Your task to perform on an android device: open app "eBay: The shopping marketplace" Image 0: 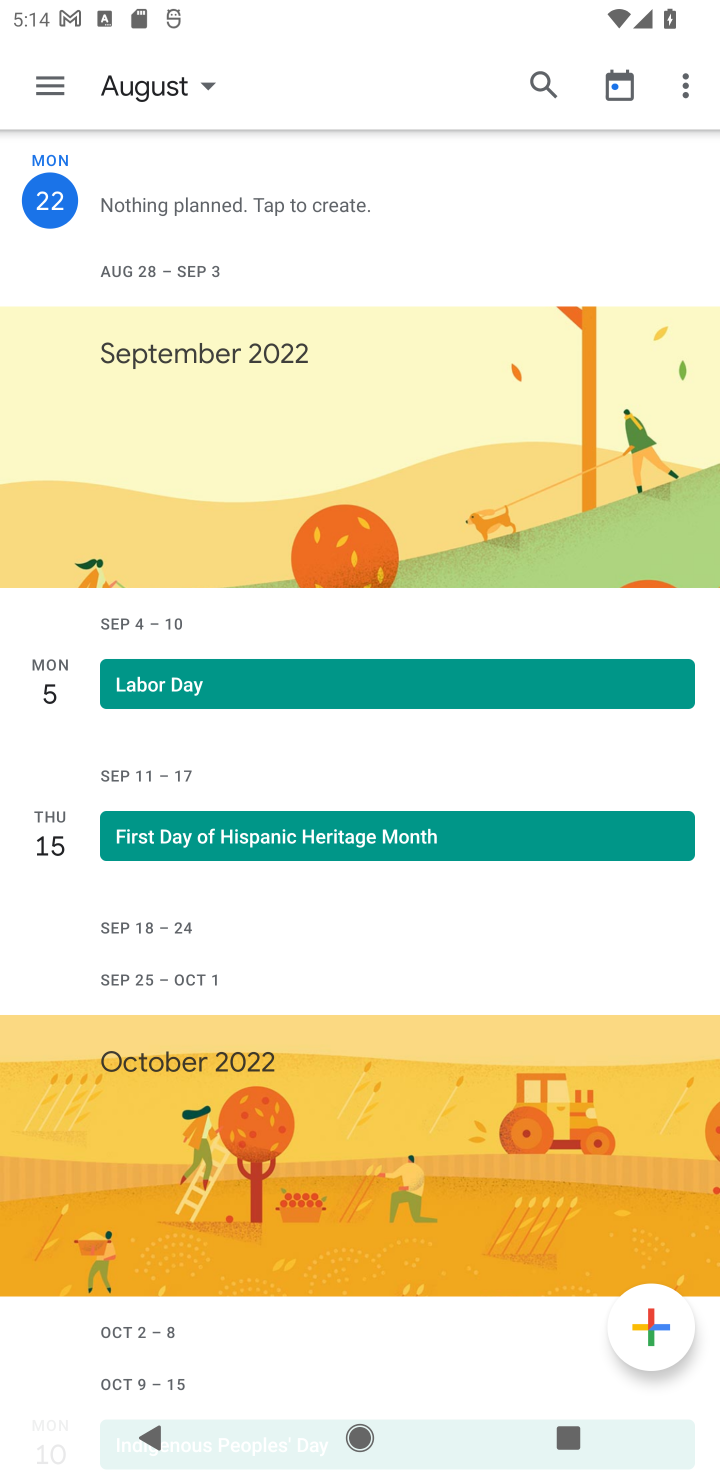
Step 0: press home button
Your task to perform on an android device: open app "eBay: The shopping marketplace" Image 1: 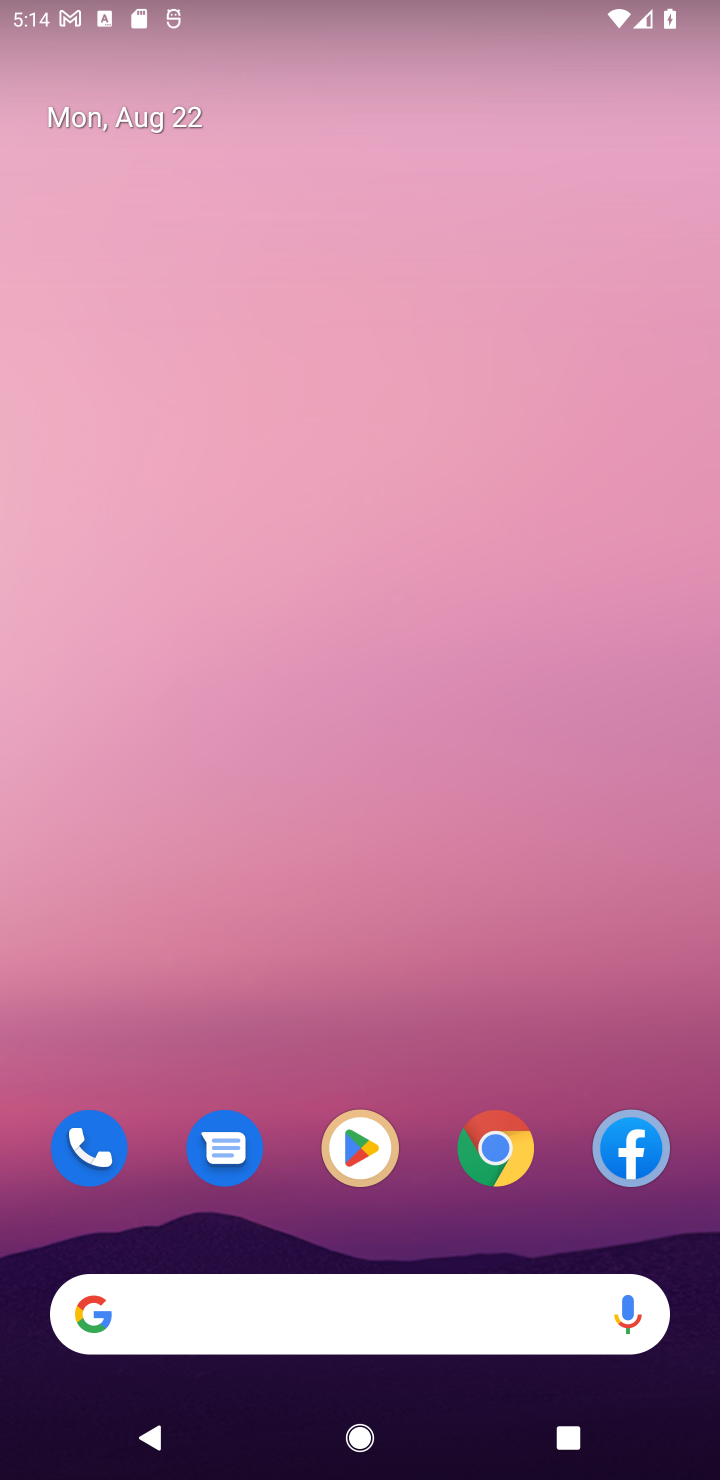
Step 1: click (359, 1155)
Your task to perform on an android device: open app "eBay: The shopping marketplace" Image 2: 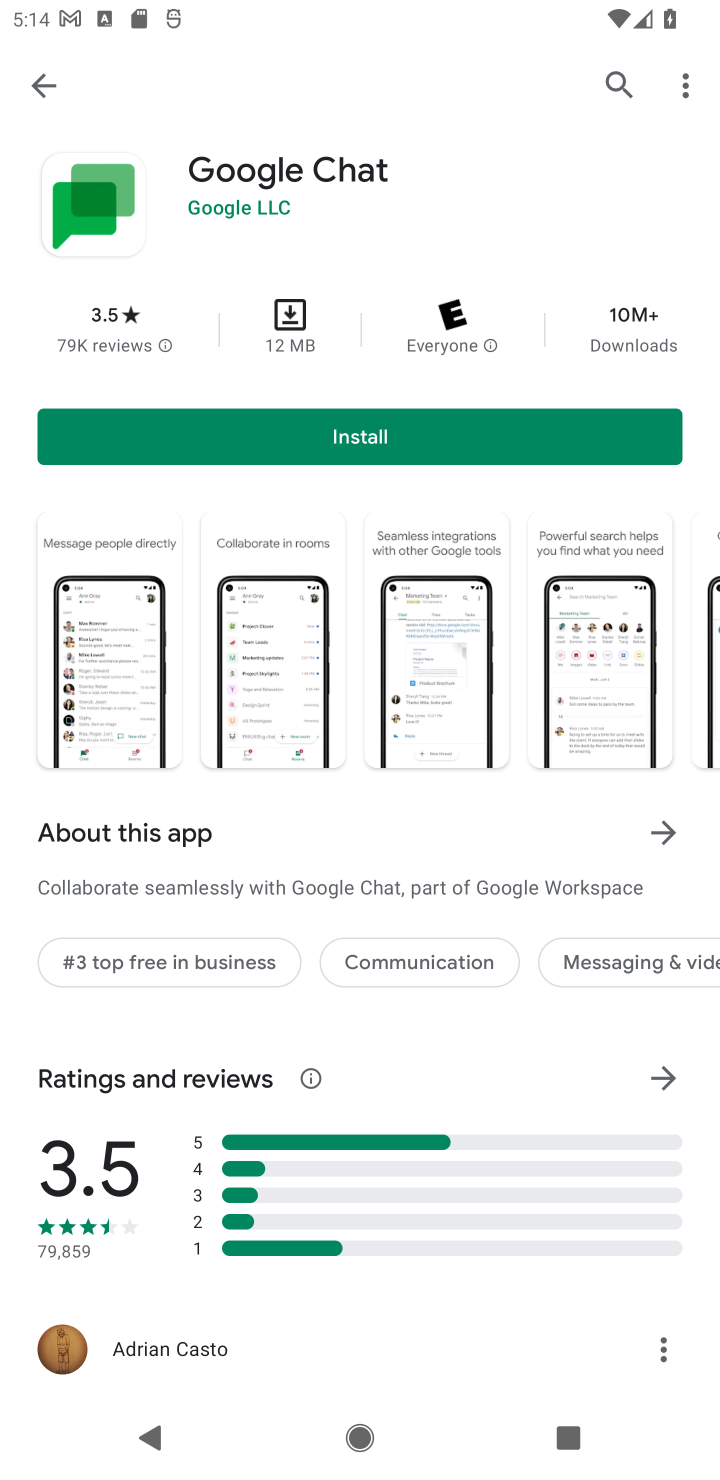
Step 2: click (612, 79)
Your task to perform on an android device: open app "eBay: The shopping marketplace" Image 3: 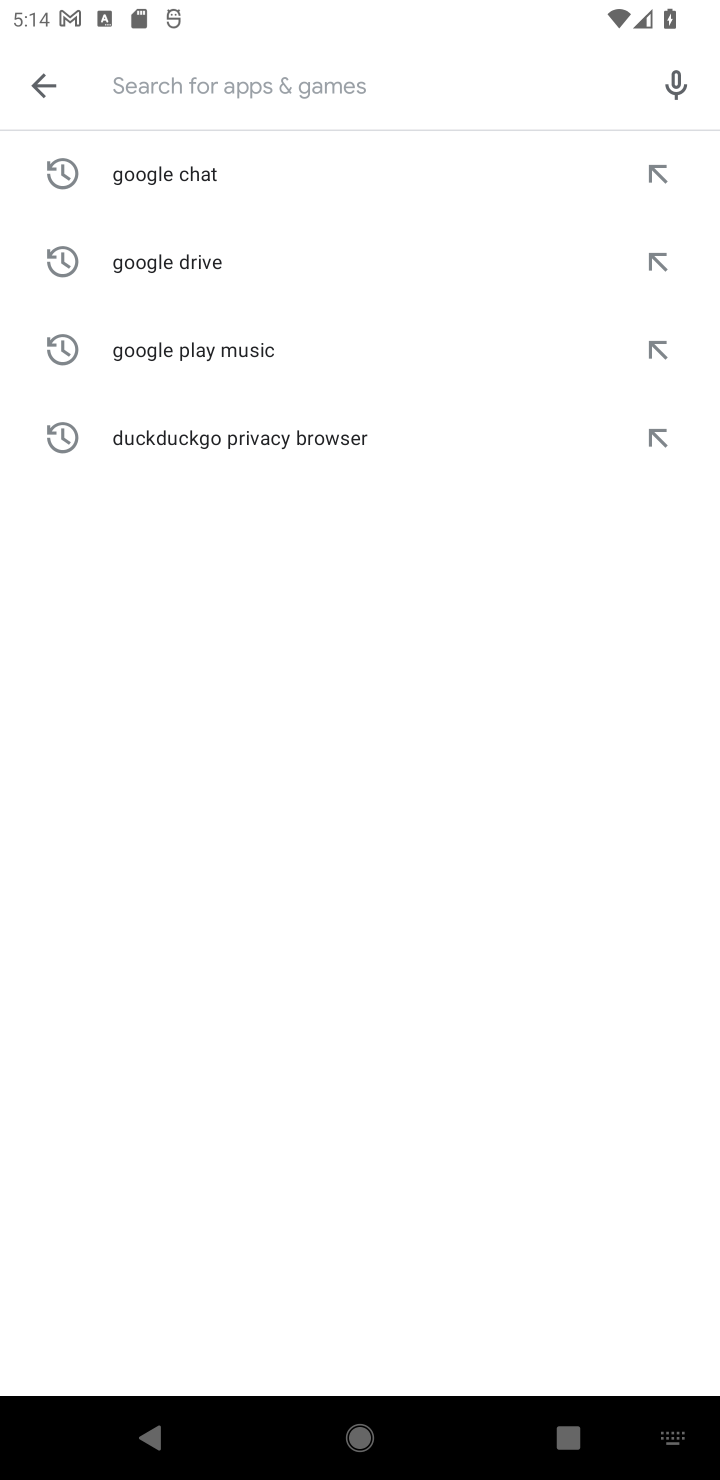
Step 3: type "eBay: The shopping marketplace"
Your task to perform on an android device: open app "eBay: The shopping marketplace" Image 4: 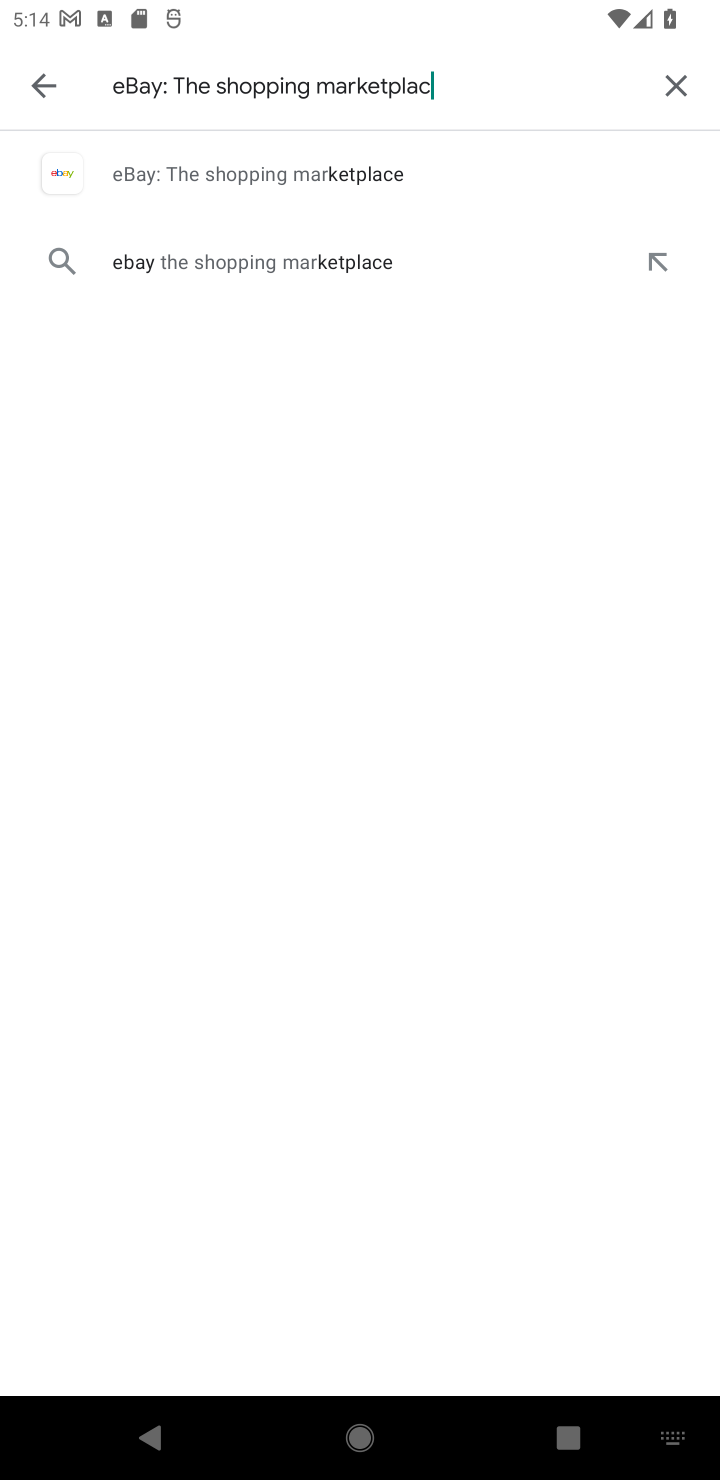
Step 4: type ""
Your task to perform on an android device: open app "eBay: The shopping marketplace" Image 5: 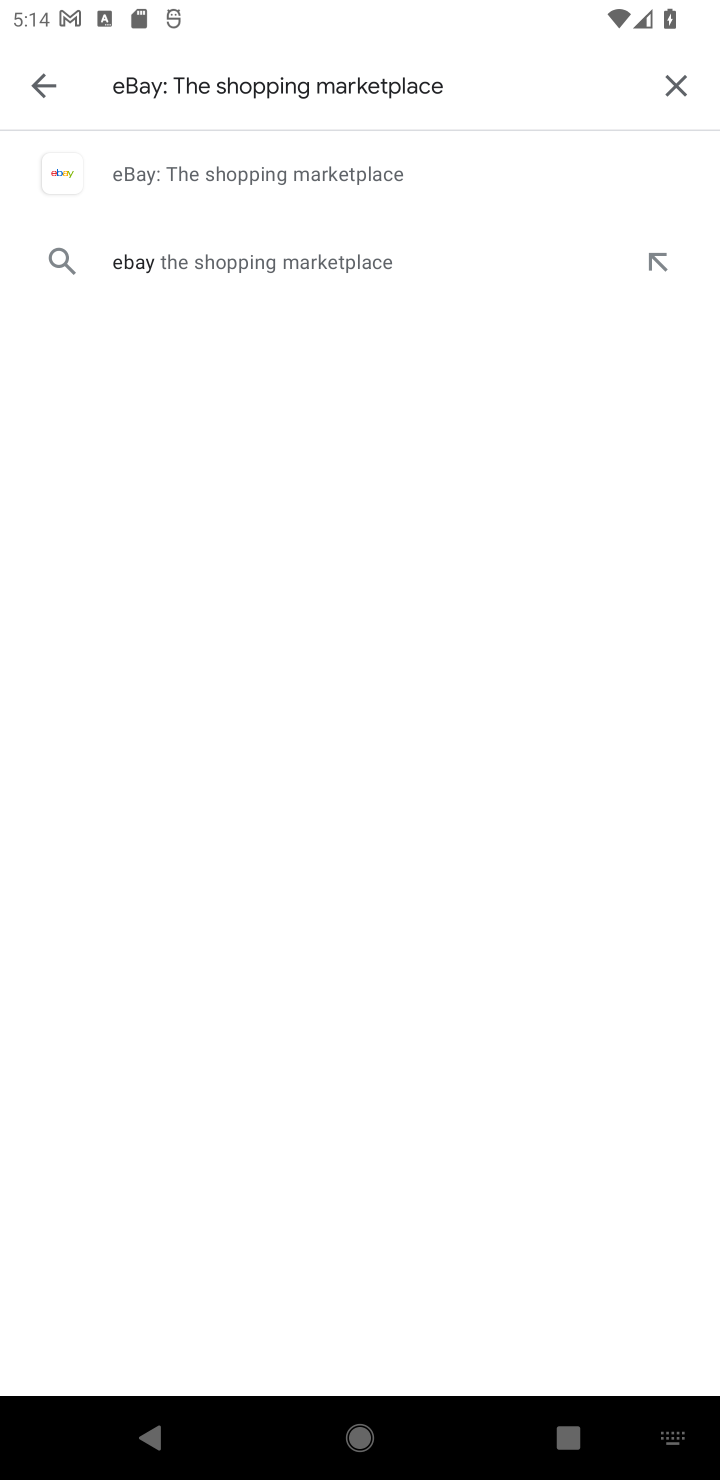
Step 5: click (213, 167)
Your task to perform on an android device: open app "eBay: The shopping marketplace" Image 6: 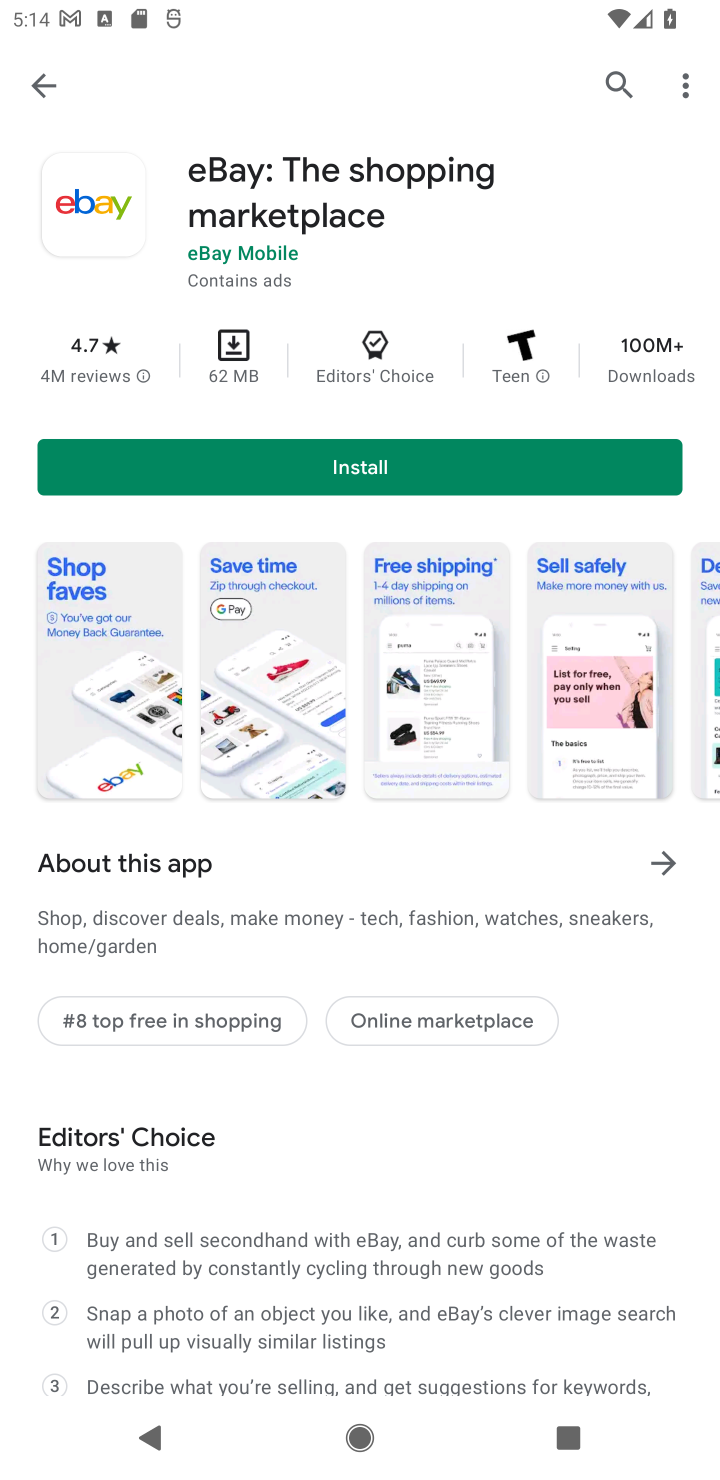
Step 6: task complete